Your task to perform on an android device: Go to Maps Image 0: 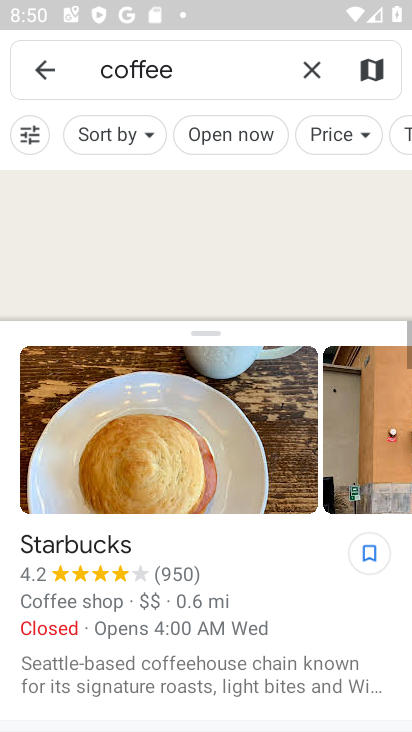
Step 0: press home button
Your task to perform on an android device: Go to Maps Image 1: 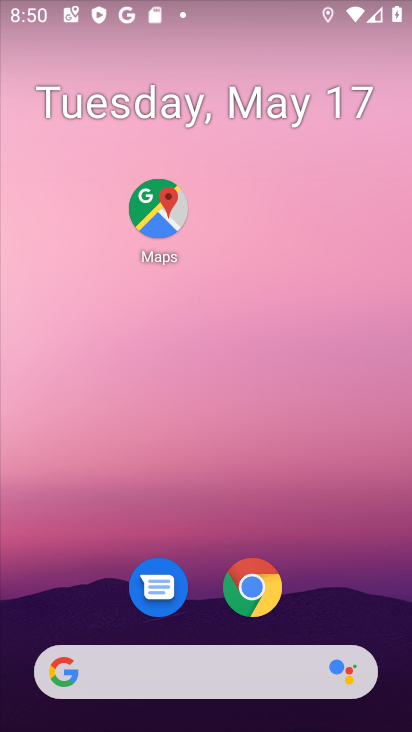
Step 1: drag from (8, 563) to (246, 200)
Your task to perform on an android device: Go to Maps Image 2: 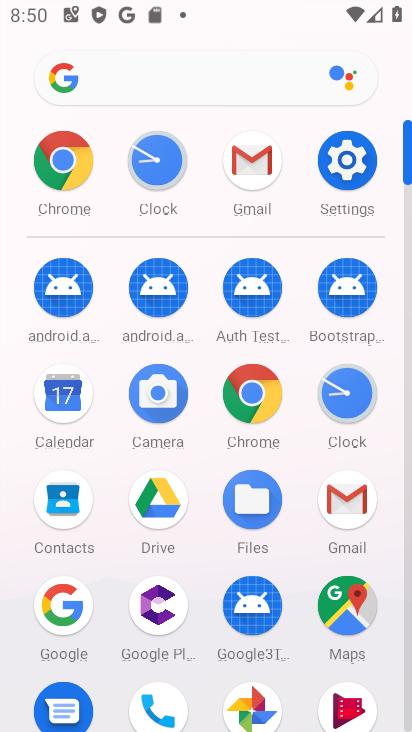
Step 2: click (331, 611)
Your task to perform on an android device: Go to Maps Image 3: 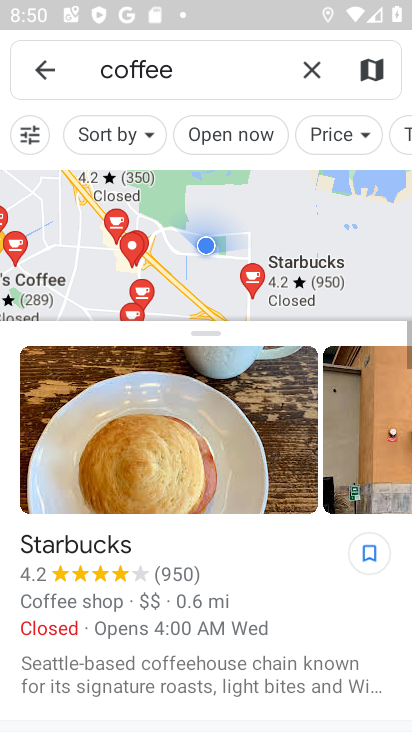
Step 3: click (303, 75)
Your task to perform on an android device: Go to Maps Image 4: 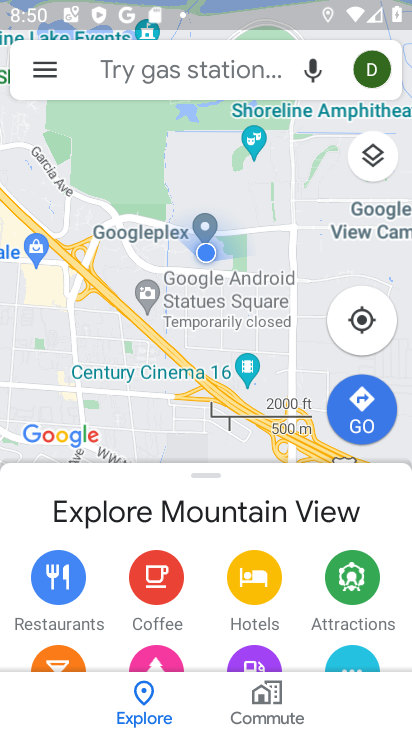
Step 4: task complete